Your task to perform on an android device: Search for a new bronzer Image 0: 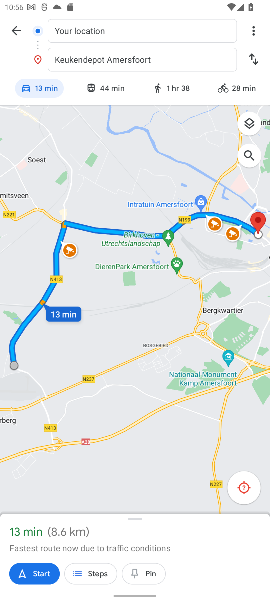
Step 0: press home button
Your task to perform on an android device: Search for a new bronzer Image 1: 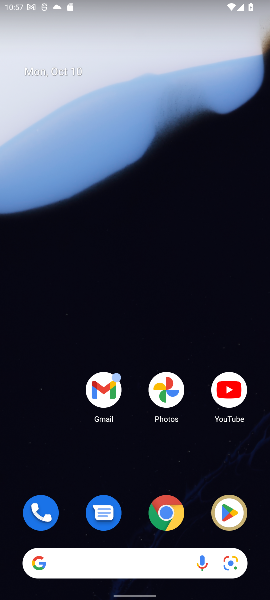
Step 1: click (114, 553)
Your task to perform on an android device: Search for a new bronzer Image 2: 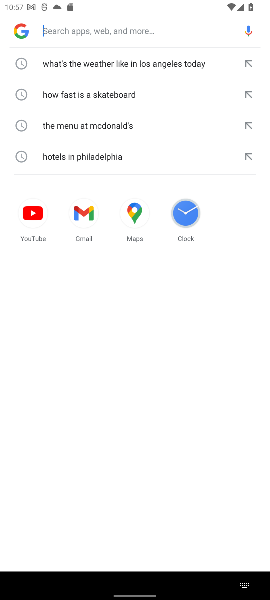
Step 2: type "Search for a new bronzer"
Your task to perform on an android device: Search for a new bronzer Image 3: 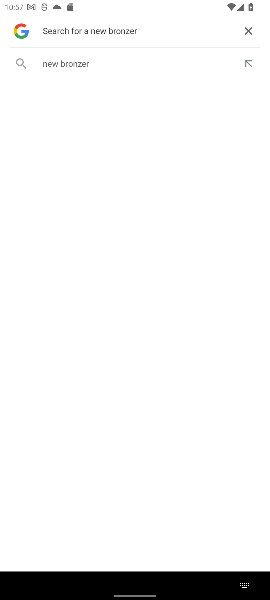
Step 3: click (75, 63)
Your task to perform on an android device: Search for a new bronzer Image 4: 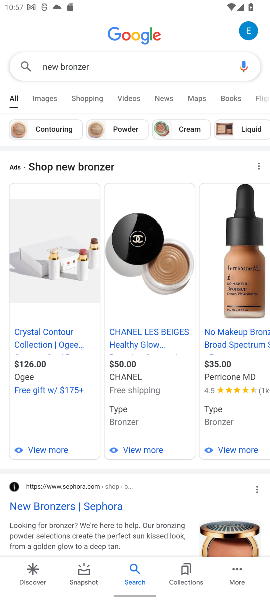
Step 4: task complete